Your task to perform on an android device: open app "Spotify: Music and Podcasts" (install if not already installed), go to login, and select forgot password Image 0: 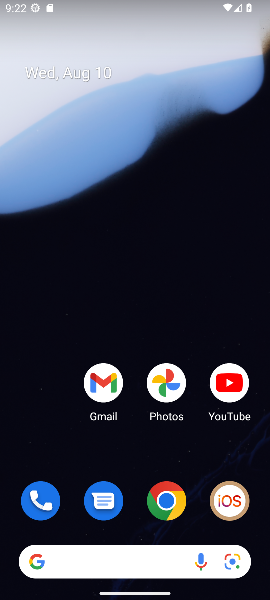
Step 0: drag from (127, 529) to (102, 201)
Your task to perform on an android device: open app "Spotify: Music and Podcasts" (install if not already installed), go to login, and select forgot password Image 1: 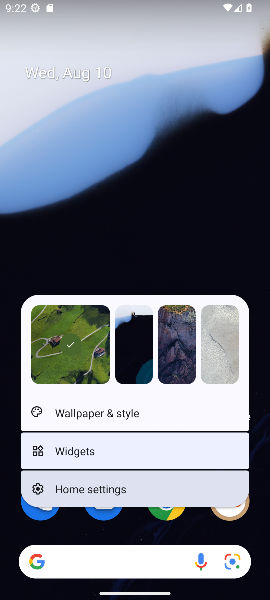
Step 1: click (102, 201)
Your task to perform on an android device: open app "Spotify: Music and Podcasts" (install if not already installed), go to login, and select forgot password Image 2: 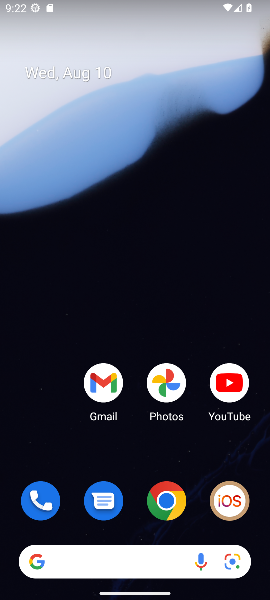
Step 2: task complete